Your task to perform on an android device: Go to network settings Image 0: 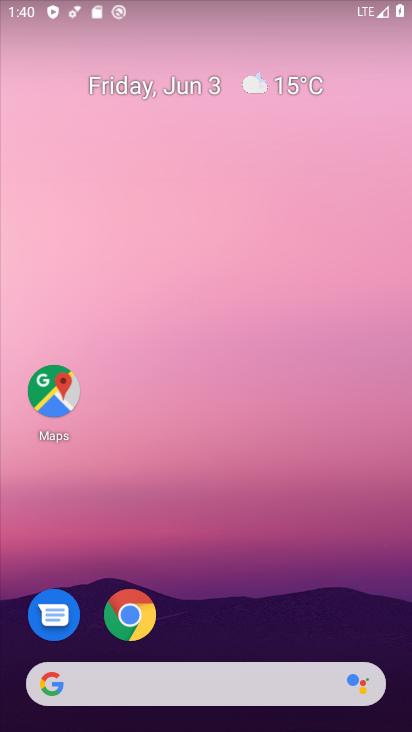
Step 0: click (159, 116)
Your task to perform on an android device: Go to network settings Image 1: 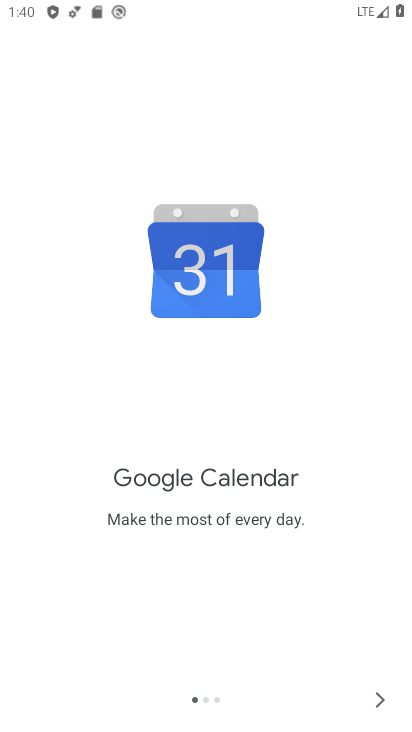
Step 1: click (374, 704)
Your task to perform on an android device: Go to network settings Image 2: 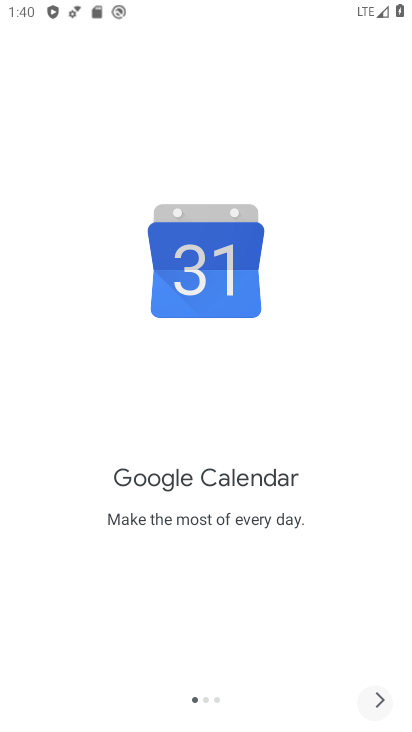
Step 2: click (374, 704)
Your task to perform on an android device: Go to network settings Image 3: 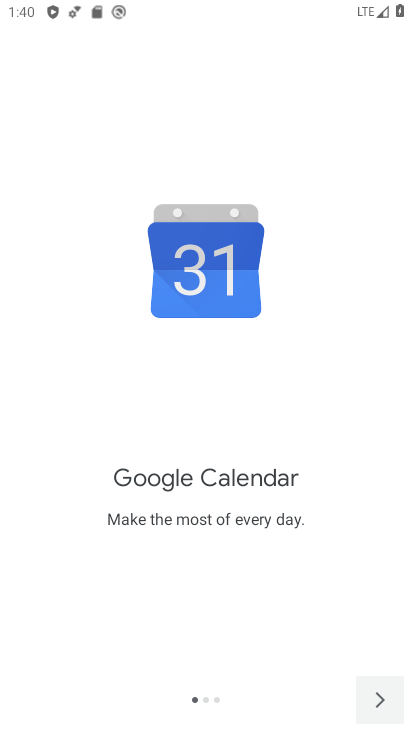
Step 3: click (374, 704)
Your task to perform on an android device: Go to network settings Image 4: 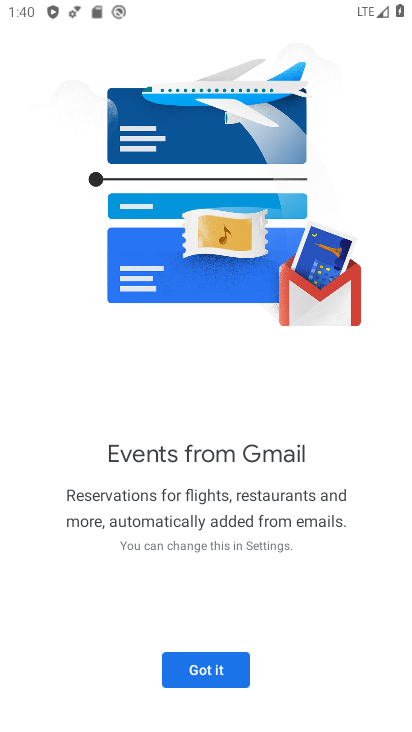
Step 4: click (165, 650)
Your task to perform on an android device: Go to network settings Image 5: 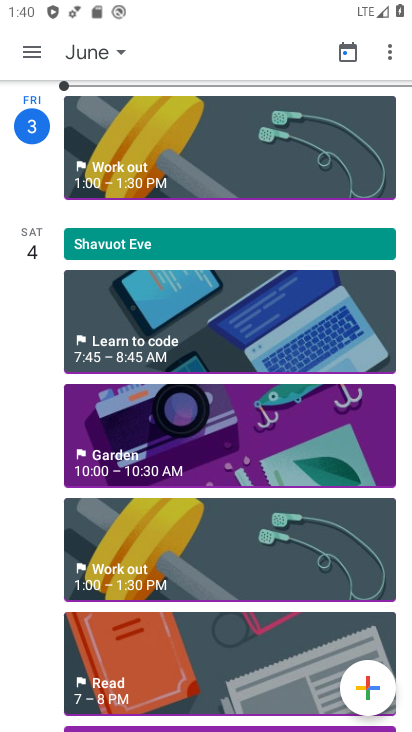
Step 5: drag from (229, 419) to (264, 163)
Your task to perform on an android device: Go to network settings Image 6: 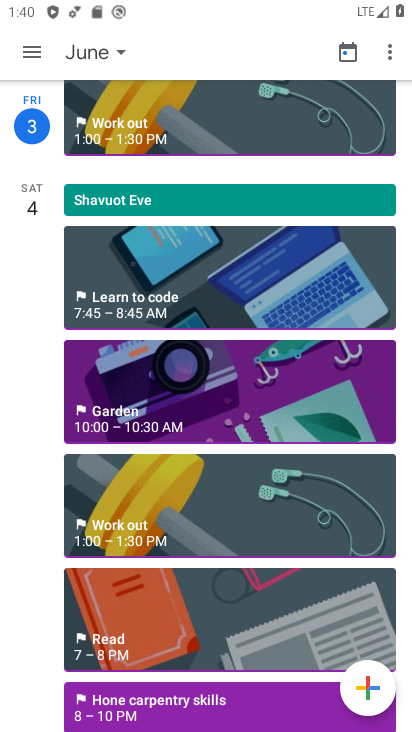
Step 6: drag from (249, 641) to (262, 328)
Your task to perform on an android device: Go to network settings Image 7: 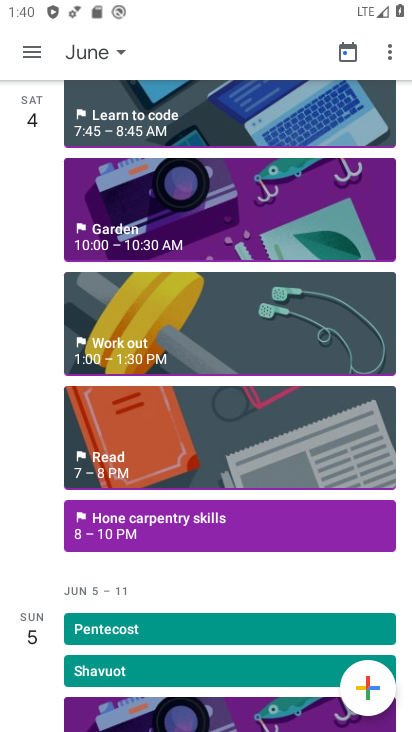
Step 7: drag from (260, 580) to (299, 287)
Your task to perform on an android device: Go to network settings Image 8: 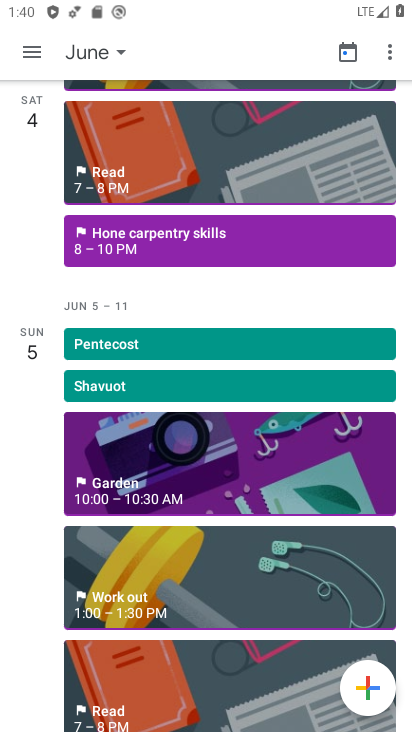
Step 8: drag from (275, 508) to (298, 341)
Your task to perform on an android device: Go to network settings Image 9: 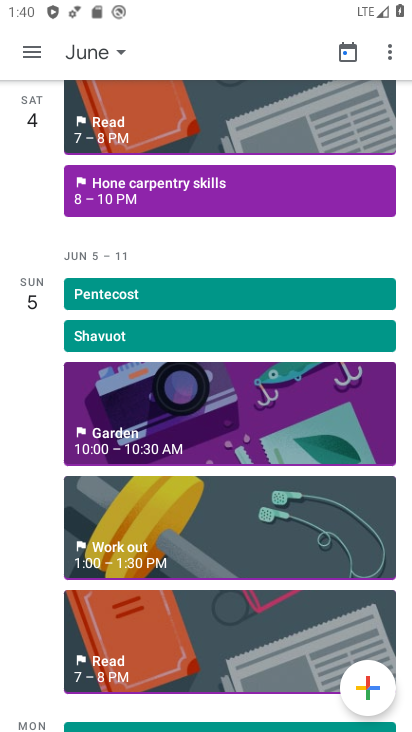
Step 9: drag from (306, 294) to (348, 723)
Your task to perform on an android device: Go to network settings Image 10: 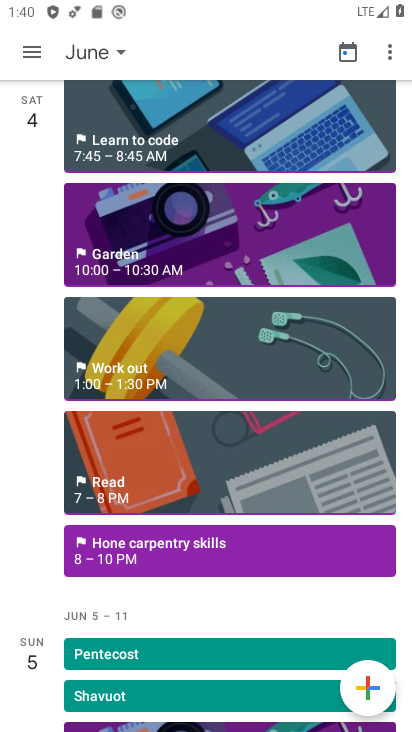
Step 10: press home button
Your task to perform on an android device: Go to network settings Image 11: 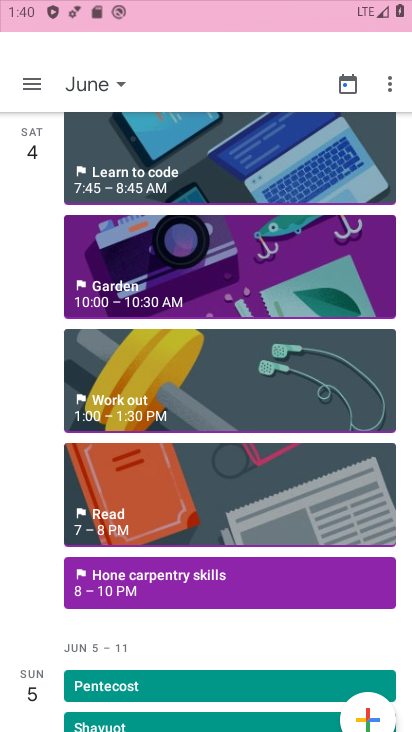
Step 11: drag from (251, 569) to (308, 2)
Your task to perform on an android device: Go to network settings Image 12: 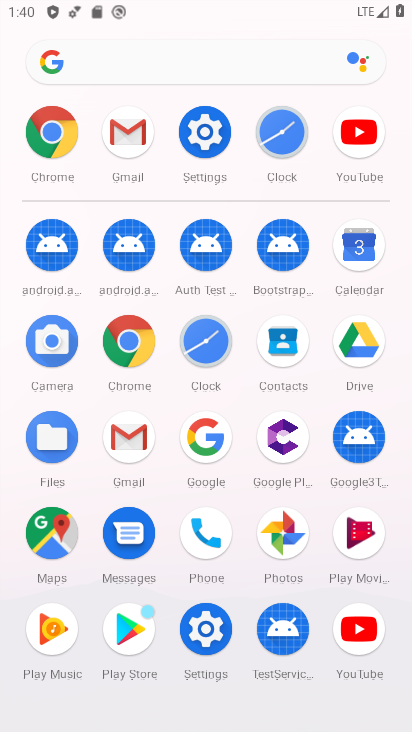
Step 12: click (198, 127)
Your task to perform on an android device: Go to network settings Image 13: 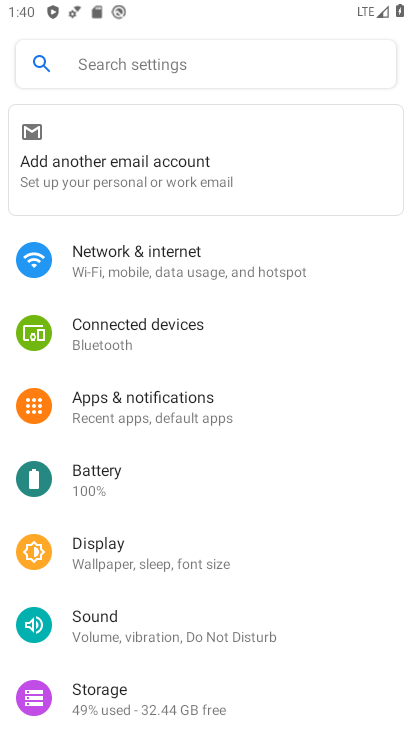
Step 13: click (187, 415)
Your task to perform on an android device: Go to network settings Image 14: 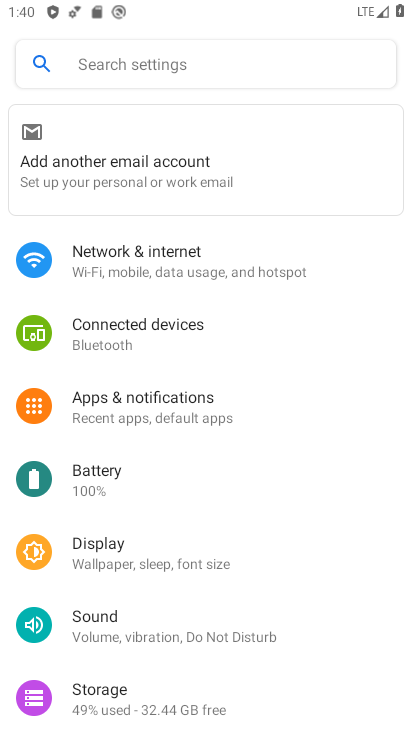
Step 14: drag from (209, 491) to (327, 111)
Your task to perform on an android device: Go to network settings Image 15: 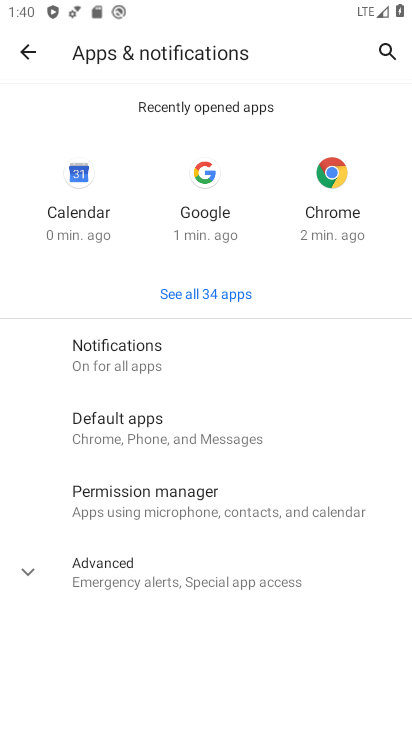
Step 15: click (151, 367)
Your task to perform on an android device: Go to network settings Image 16: 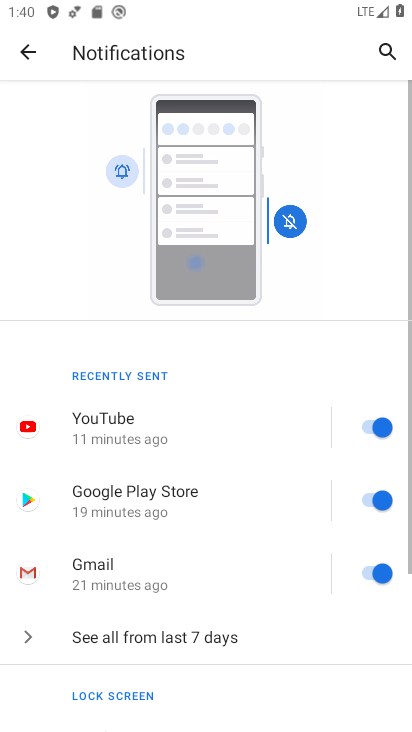
Step 16: drag from (203, 599) to (302, 115)
Your task to perform on an android device: Go to network settings Image 17: 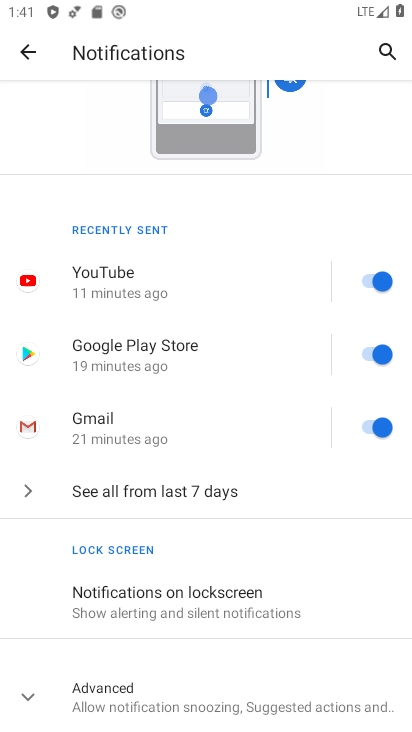
Step 17: click (149, 694)
Your task to perform on an android device: Go to network settings Image 18: 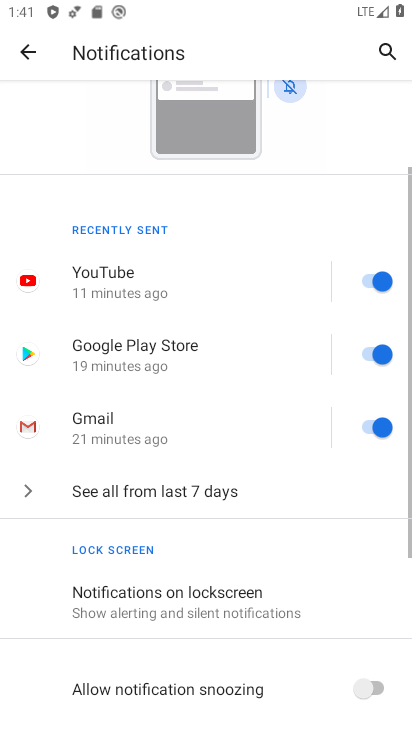
Step 18: drag from (251, 568) to (278, 1)
Your task to perform on an android device: Go to network settings Image 19: 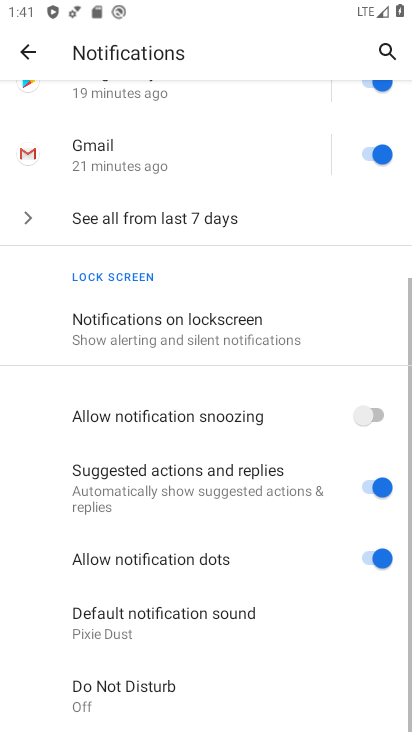
Step 19: drag from (223, 550) to (256, 141)
Your task to perform on an android device: Go to network settings Image 20: 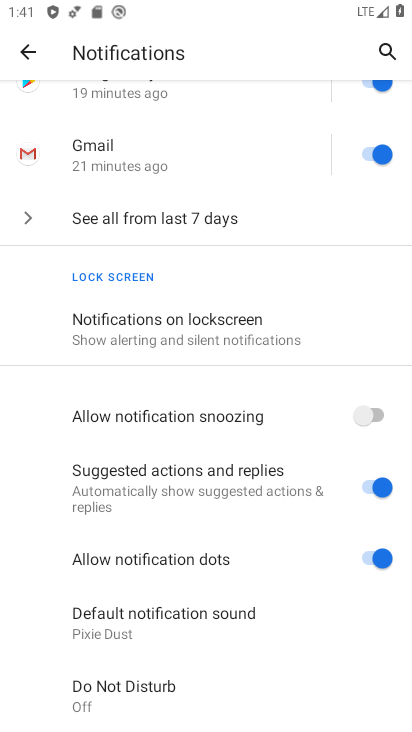
Step 20: drag from (237, 561) to (285, 163)
Your task to perform on an android device: Go to network settings Image 21: 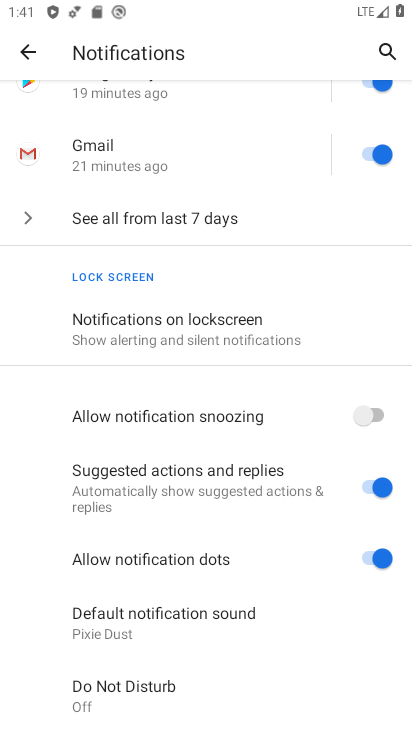
Step 21: drag from (269, 121) to (290, 617)
Your task to perform on an android device: Go to network settings Image 22: 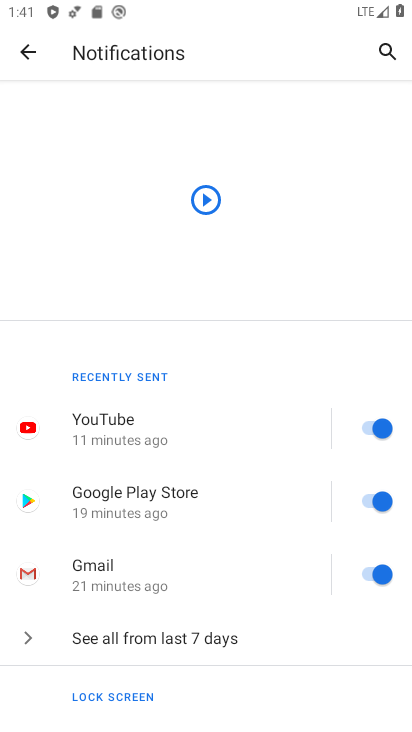
Step 22: drag from (253, 588) to (249, 157)
Your task to perform on an android device: Go to network settings Image 23: 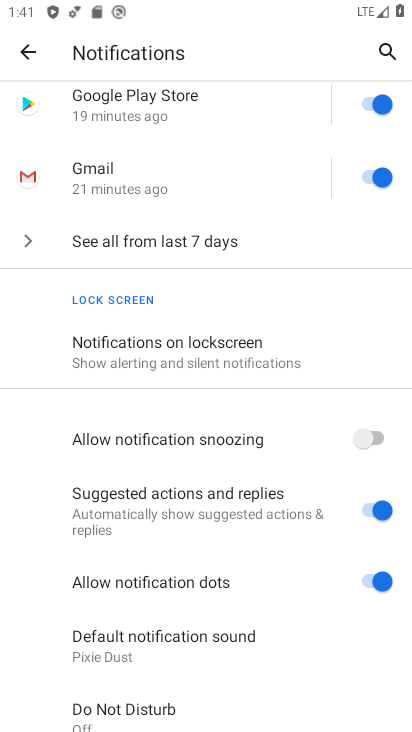
Step 23: drag from (210, 523) to (256, 241)
Your task to perform on an android device: Go to network settings Image 24: 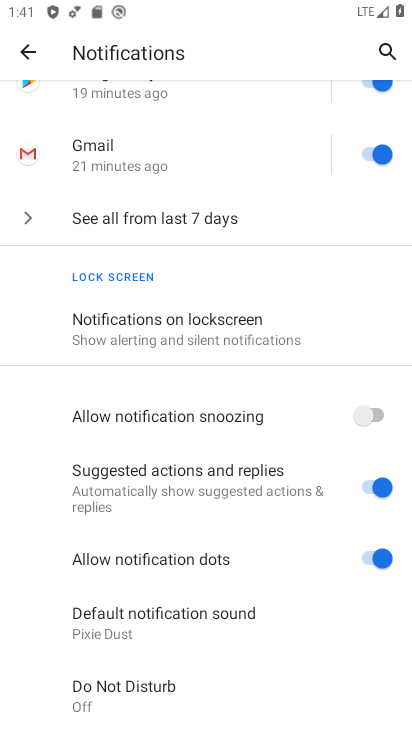
Step 24: drag from (252, 621) to (290, 223)
Your task to perform on an android device: Go to network settings Image 25: 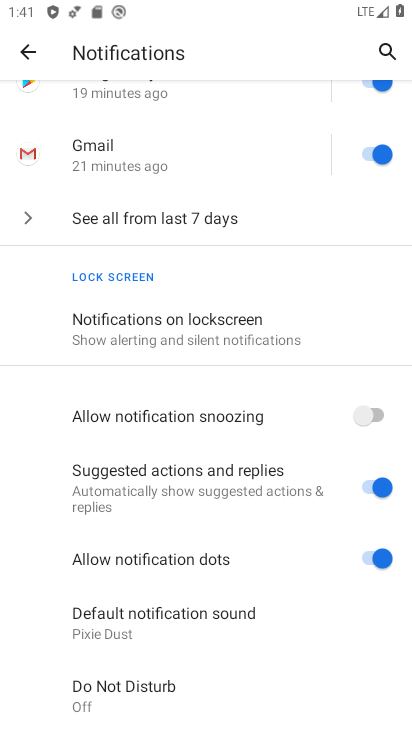
Step 25: drag from (287, 645) to (299, 296)
Your task to perform on an android device: Go to network settings Image 26: 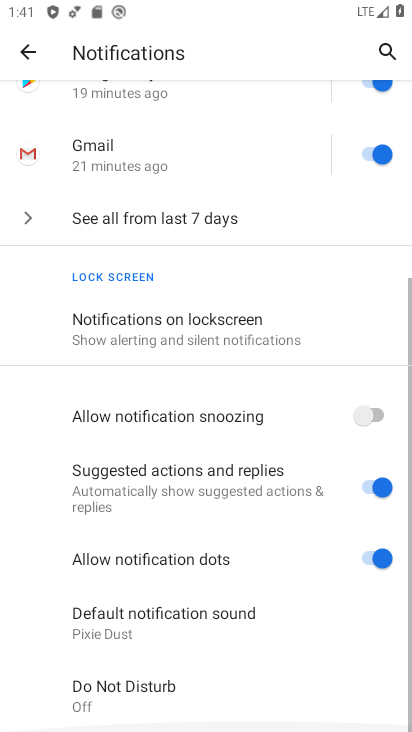
Step 26: drag from (283, 239) to (218, 714)
Your task to perform on an android device: Go to network settings Image 27: 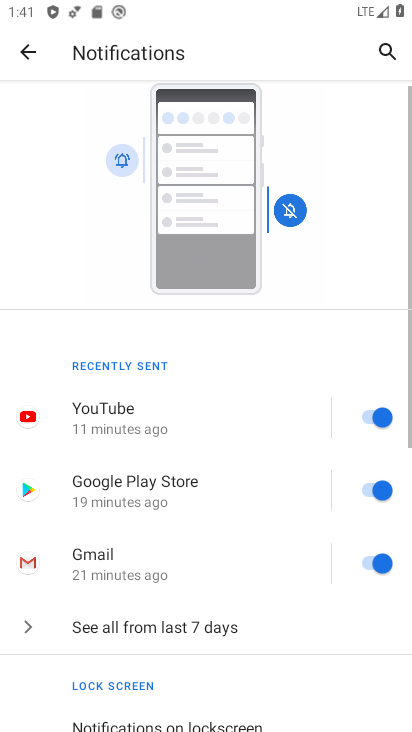
Step 27: drag from (173, 490) to (295, 122)
Your task to perform on an android device: Go to network settings Image 28: 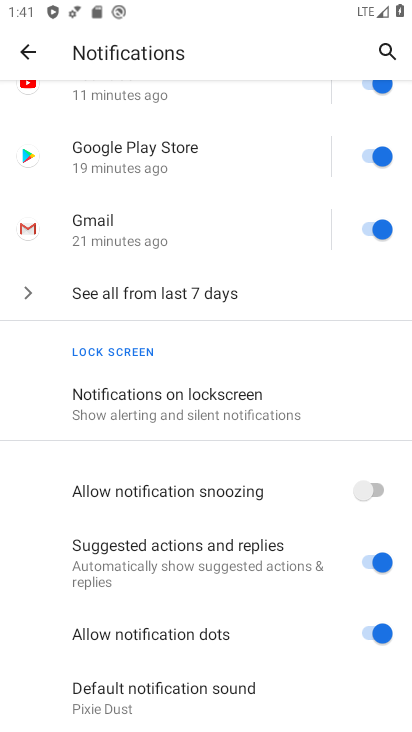
Step 28: drag from (225, 588) to (291, 228)
Your task to perform on an android device: Go to network settings Image 29: 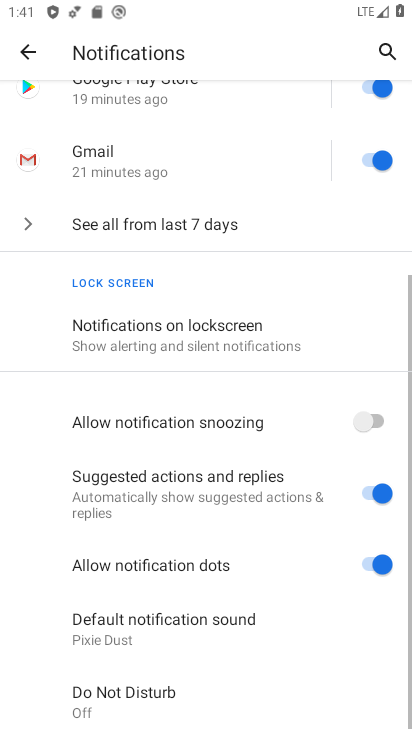
Step 29: drag from (267, 197) to (307, 716)
Your task to perform on an android device: Go to network settings Image 30: 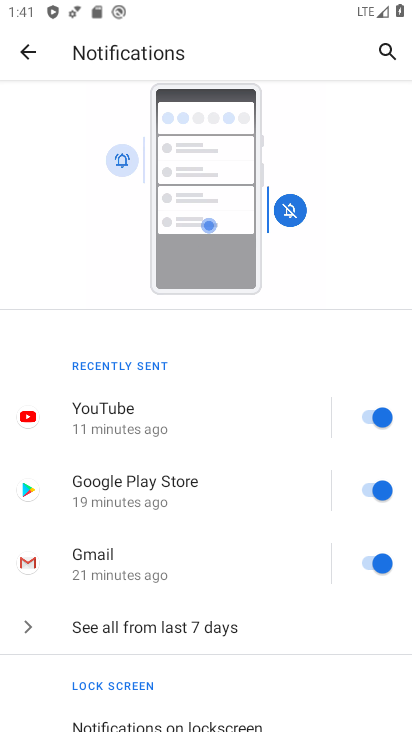
Step 30: drag from (242, 468) to (308, 173)
Your task to perform on an android device: Go to network settings Image 31: 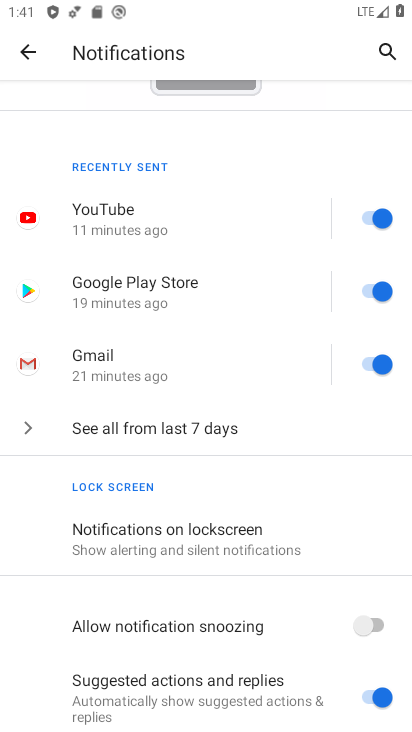
Step 31: click (38, 60)
Your task to perform on an android device: Go to network settings Image 32: 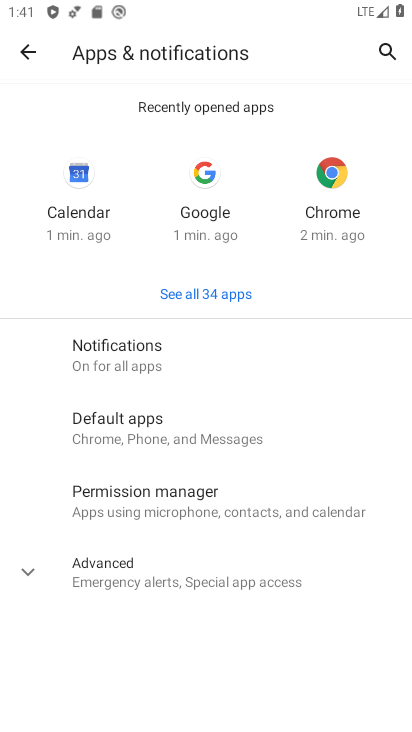
Step 32: drag from (141, 228) to (265, 730)
Your task to perform on an android device: Go to network settings Image 33: 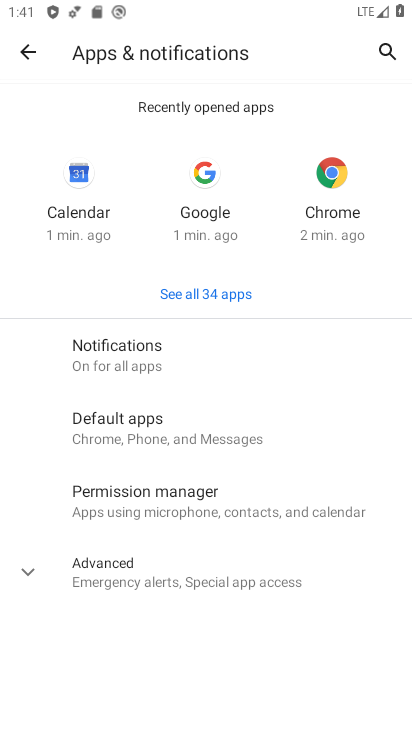
Step 33: click (28, 43)
Your task to perform on an android device: Go to network settings Image 34: 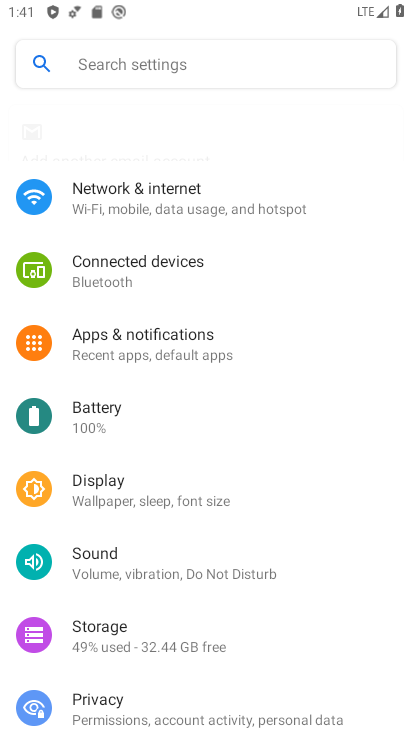
Step 34: drag from (167, 262) to (306, 719)
Your task to perform on an android device: Go to network settings Image 35: 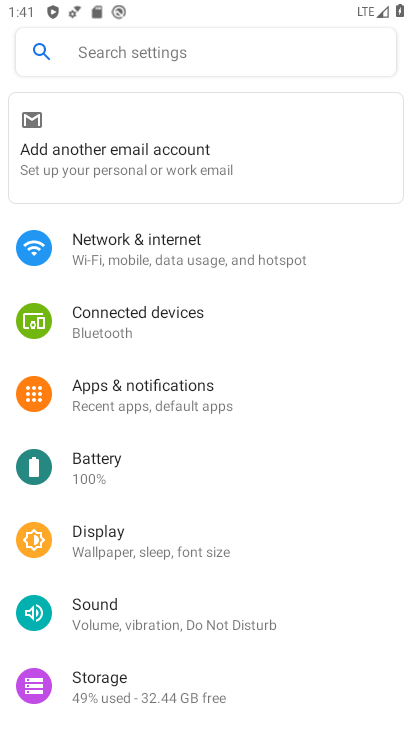
Step 35: click (221, 230)
Your task to perform on an android device: Go to network settings Image 36: 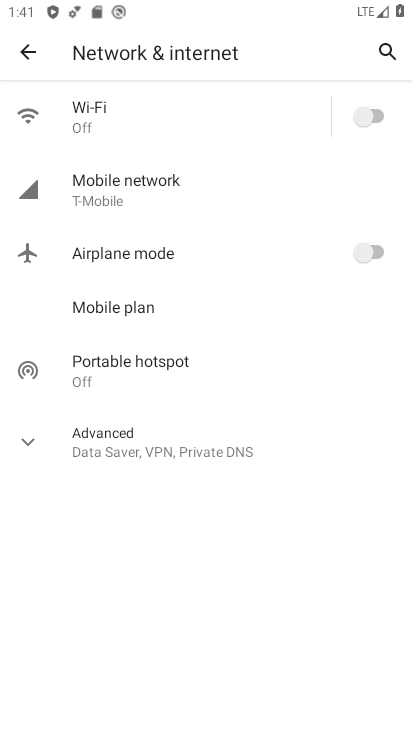
Step 36: drag from (174, 420) to (207, 208)
Your task to perform on an android device: Go to network settings Image 37: 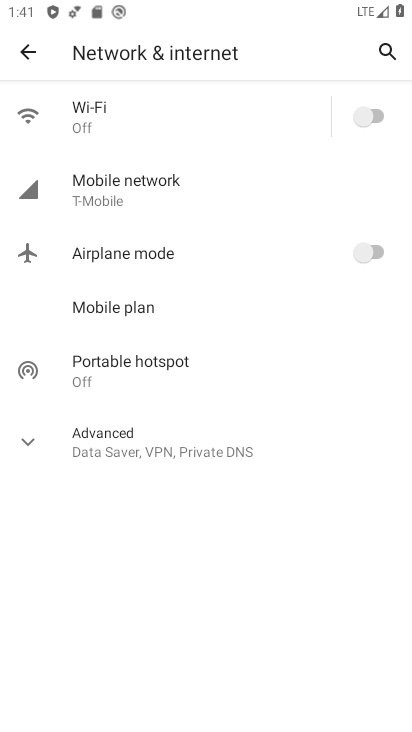
Step 37: click (368, 119)
Your task to perform on an android device: Go to network settings Image 38: 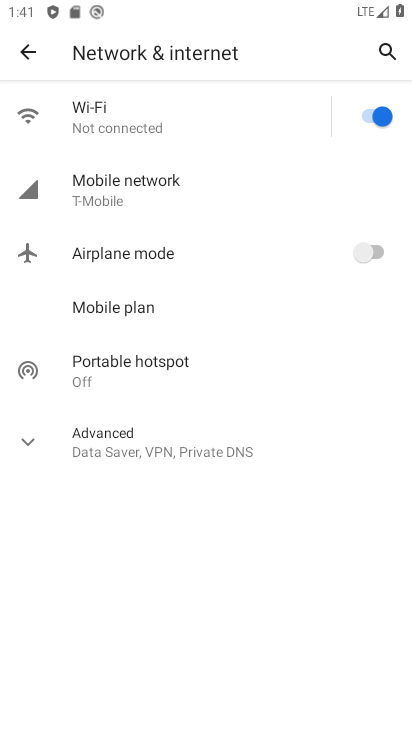
Step 38: click (389, 114)
Your task to perform on an android device: Go to network settings Image 39: 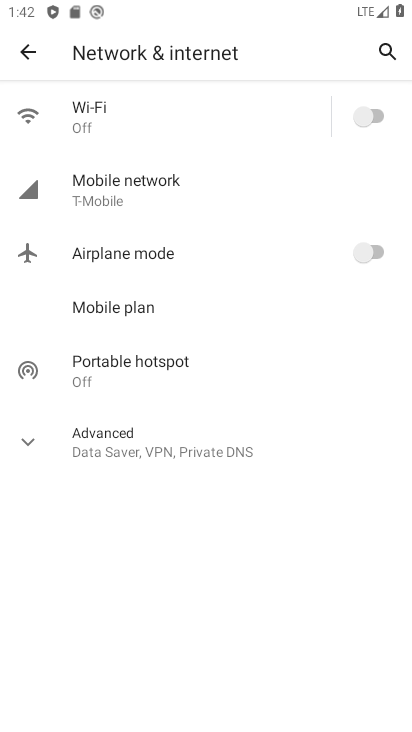
Step 39: task complete